Your task to perform on an android device: What's on Reddit today Image 0: 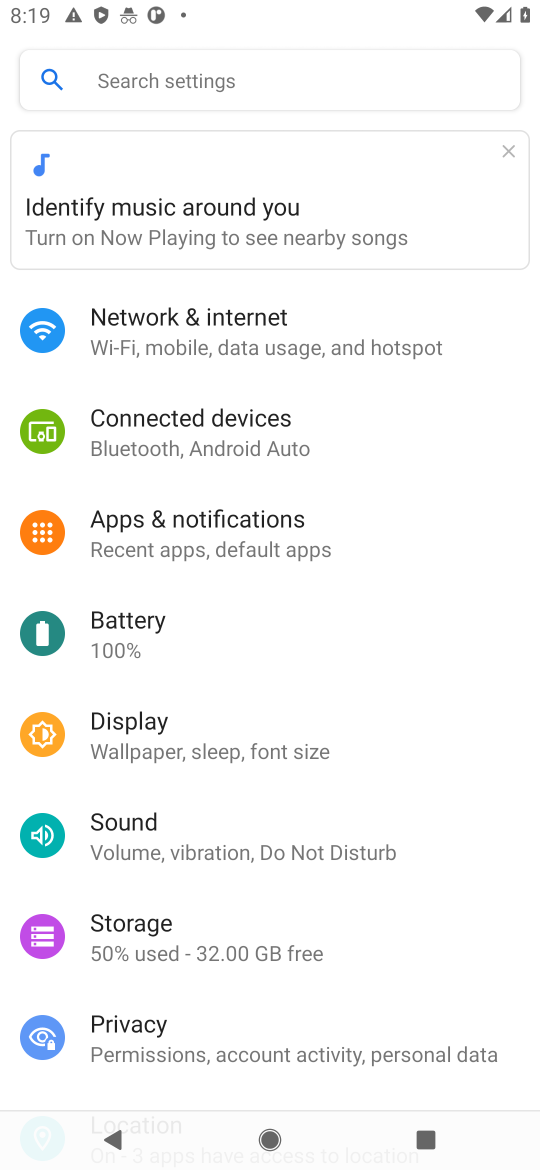
Step 0: press home button
Your task to perform on an android device: What's on Reddit today Image 1: 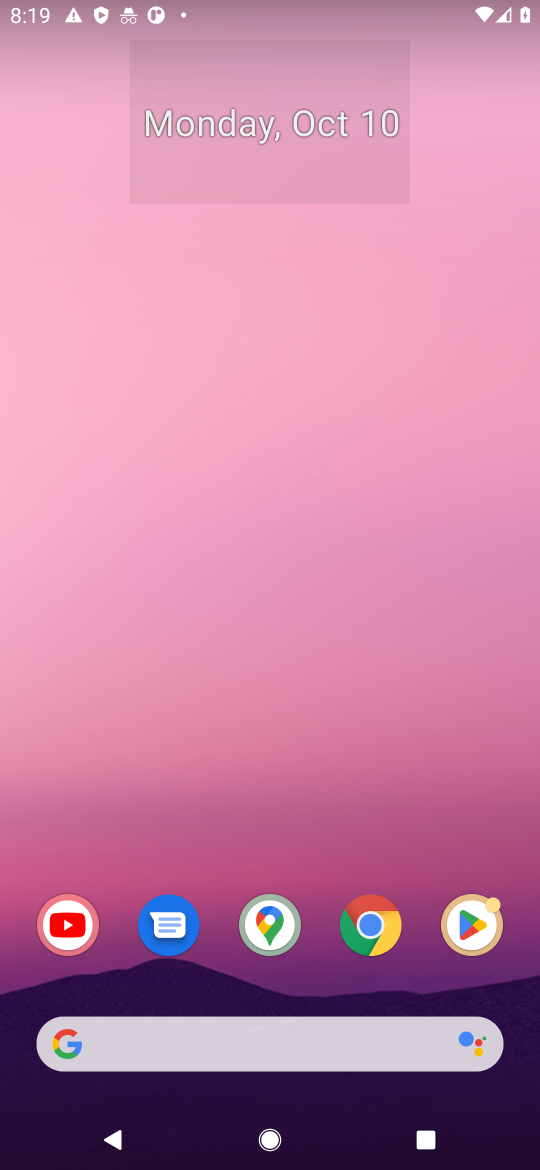
Step 1: drag from (298, 980) to (301, 79)
Your task to perform on an android device: What's on Reddit today Image 2: 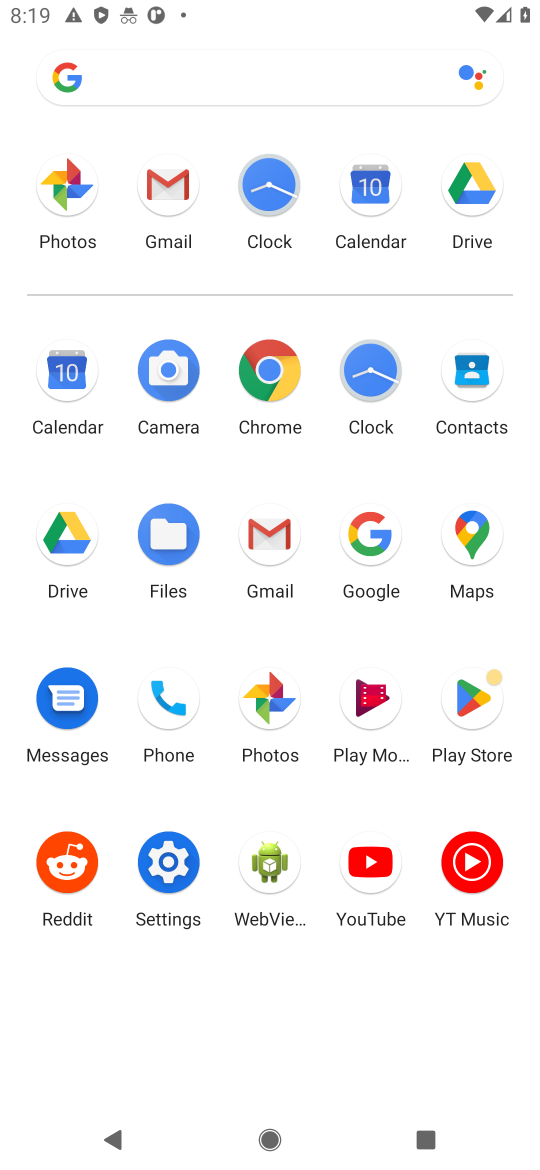
Step 2: click (66, 862)
Your task to perform on an android device: What's on Reddit today Image 3: 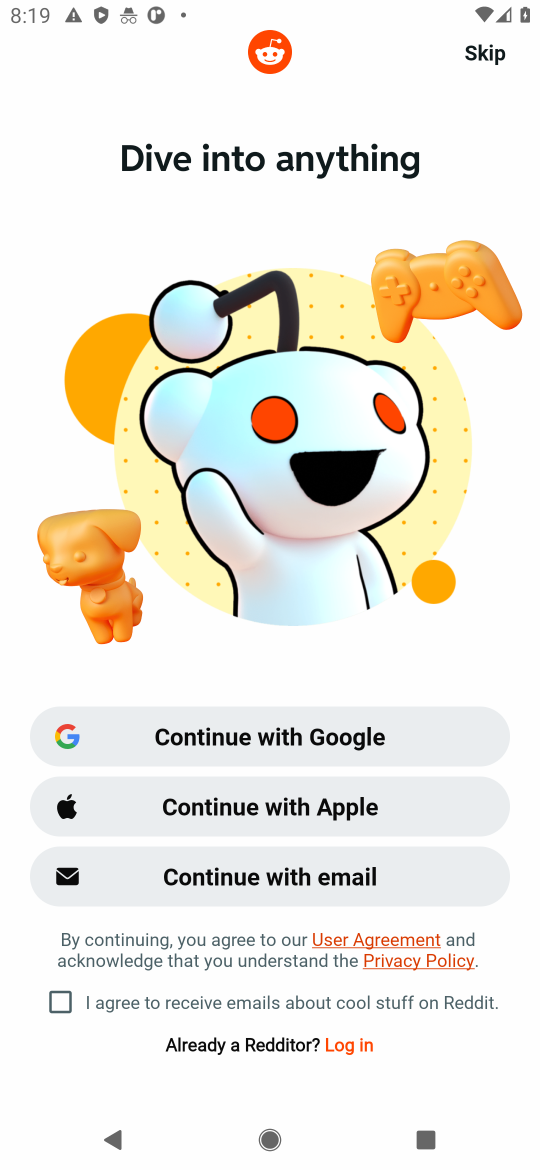
Step 3: click (475, 54)
Your task to perform on an android device: What's on Reddit today Image 4: 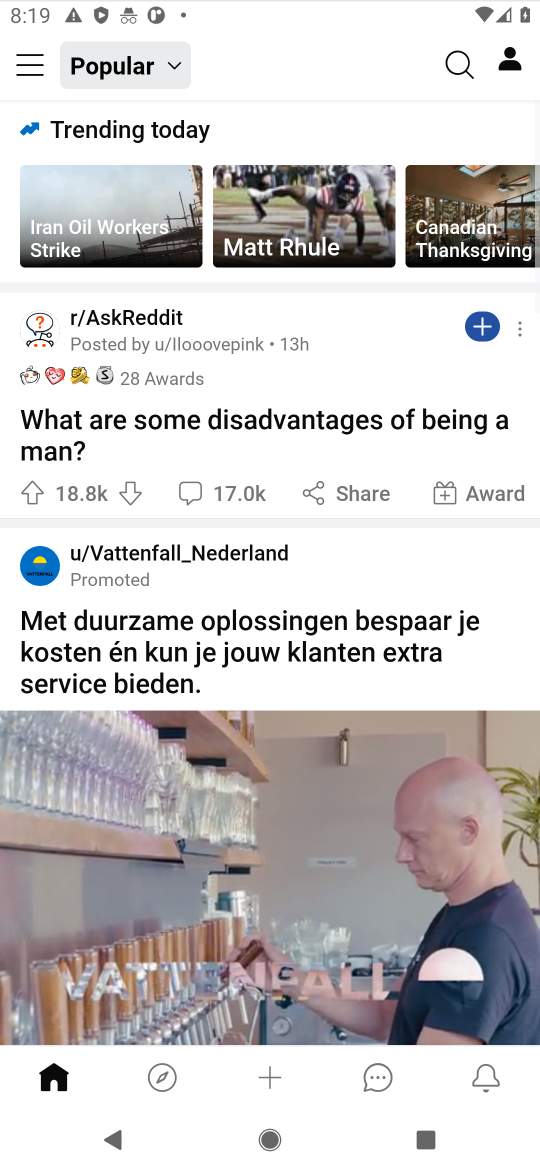
Step 4: task complete